Your task to perform on an android device: Go to battery settings Image 0: 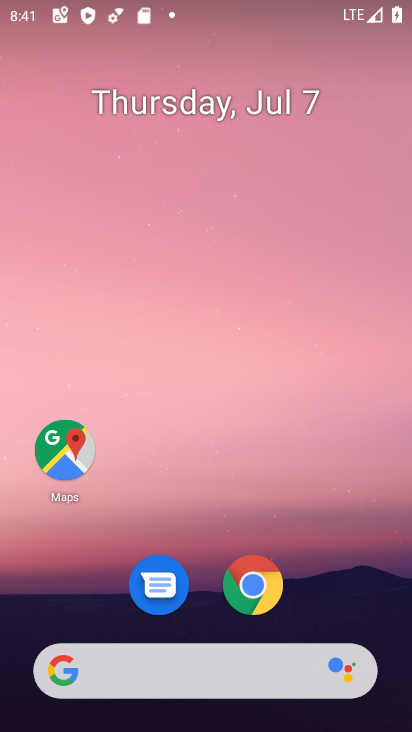
Step 0: drag from (249, 487) to (295, 2)
Your task to perform on an android device: Go to battery settings Image 1: 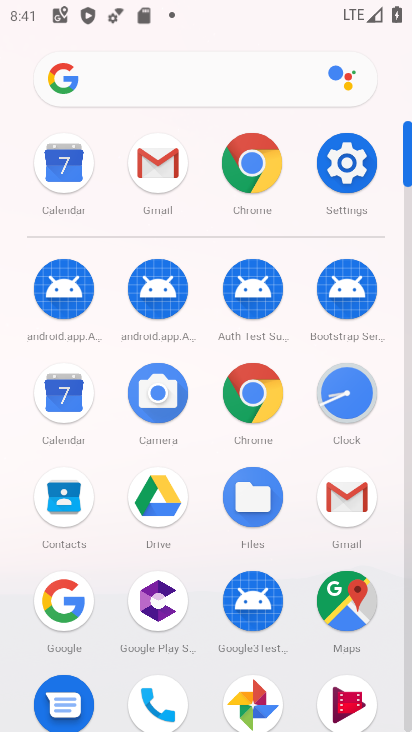
Step 1: click (353, 158)
Your task to perform on an android device: Go to battery settings Image 2: 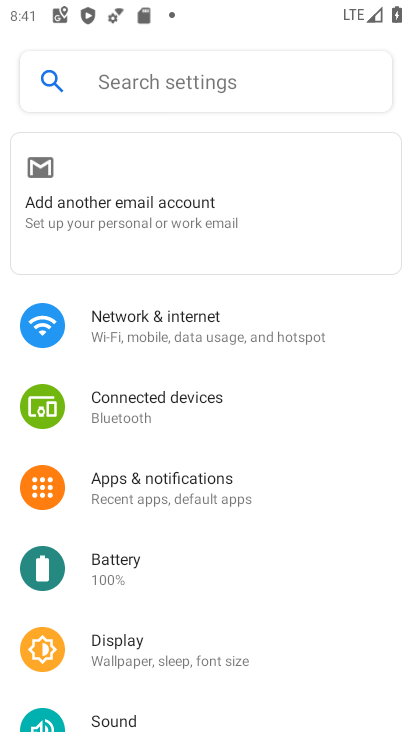
Step 2: click (144, 573)
Your task to perform on an android device: Go to battery settings Image 3: 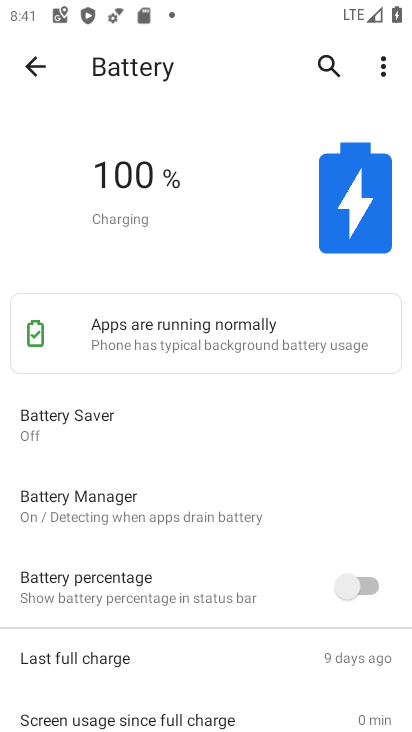
Step 3: task complete